Your task to perform on an android device: Is it going to rain today? Image 0: 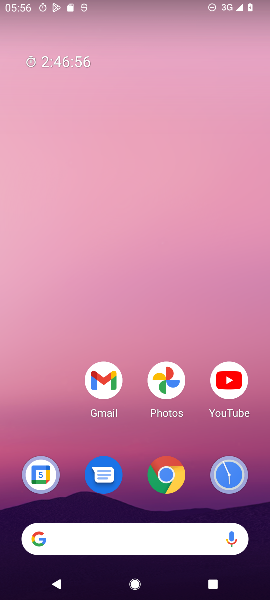
Step 0: press home button
Your task to perform on an android device: Is it going to rain today? Image 1: 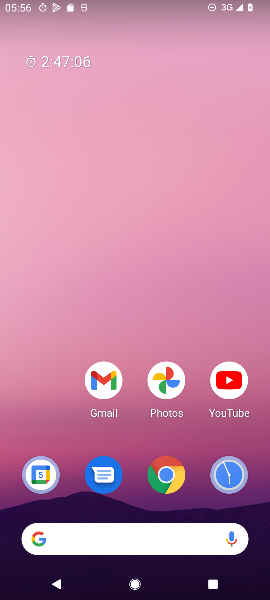
Step 1: click (116, 532)
Your task to perform on an android device: Is it going to rain today? Image 2: 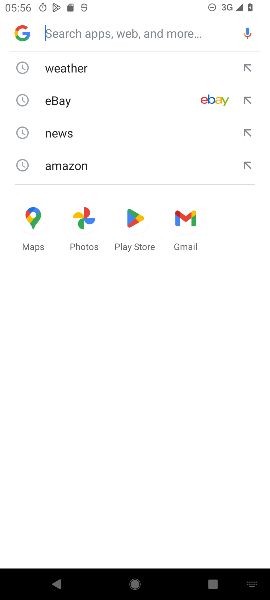
Step 2: click (80, 69)
Your task to perform on an android device: Is it going to rain today? Image 3: 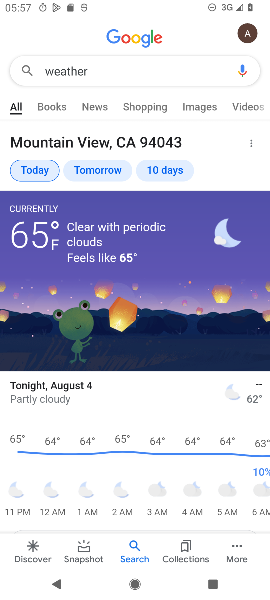
Step 3: task complete